Your task to perform on an android device: turn notification dots off Image 0: 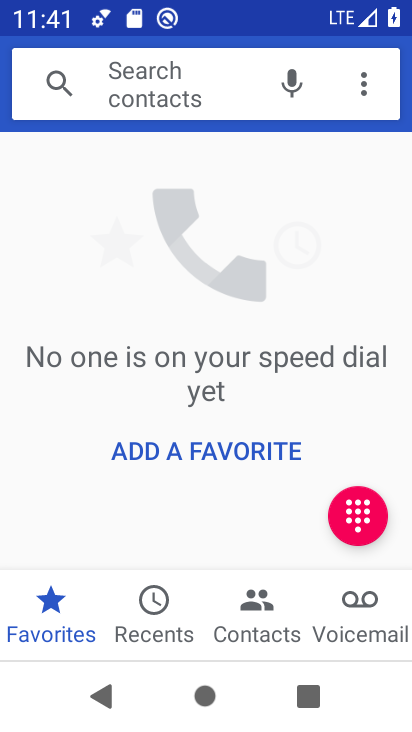
Step 0: press home button
Your task to perform on an android device: turn notification dots off Image 1: 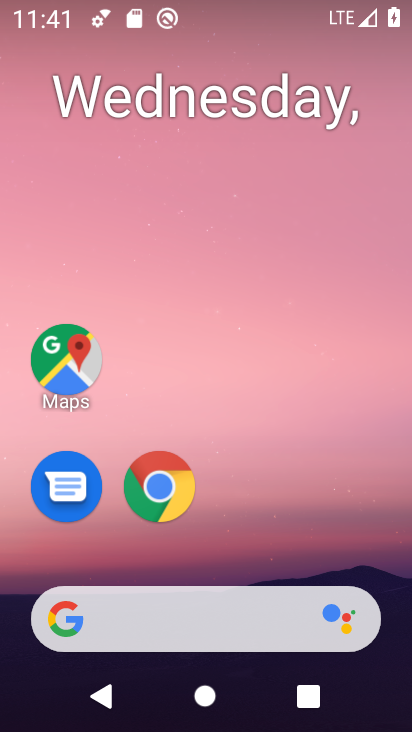
Step 1: drag from (375, 560) to (346, 38)
Your task to perform on an android device: turn notification dots off Image 2: 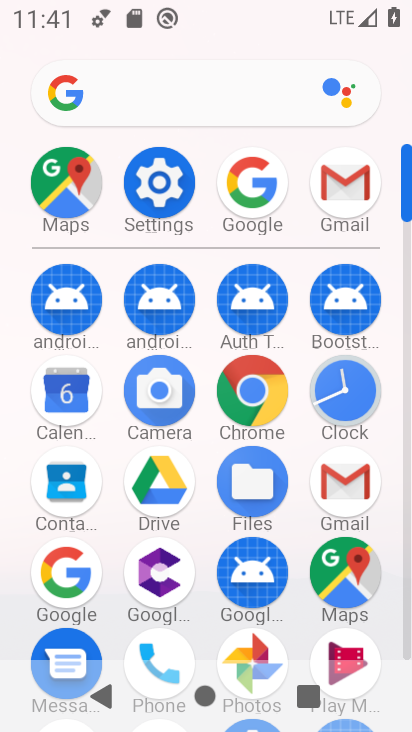
Step 2: click (173, 213)
Your task to perform on an android device: turn notification dots off Image 3: 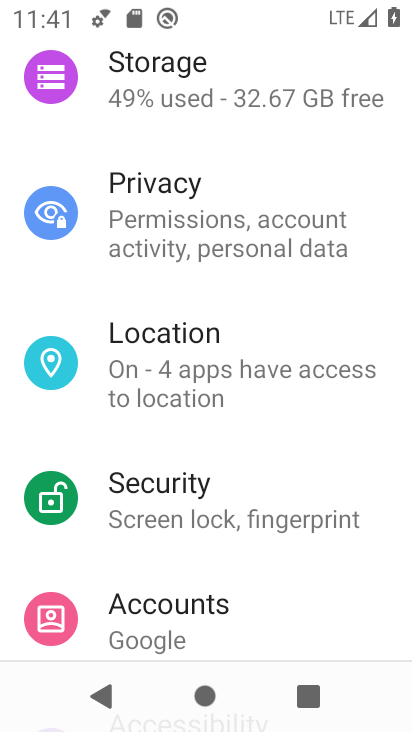
Step 3: drag from (391, 301) to (396, 377)
Your task to perform on an android device: turn notification dots off Image 4: 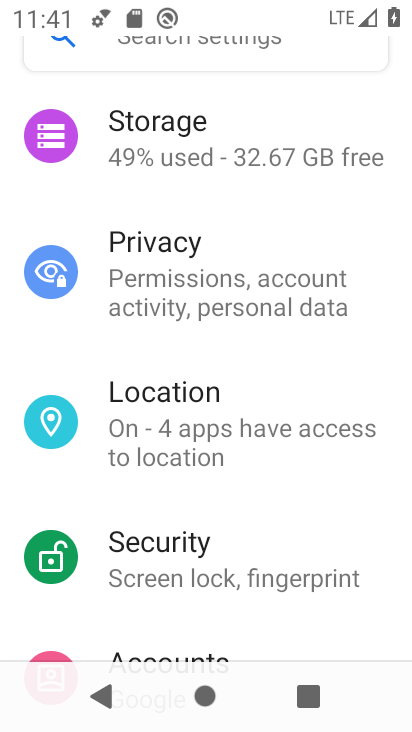
Step 4: drag from (388, 282) to (391, 381)
Your task to perform on an android device: turn notification dots off Image 5: 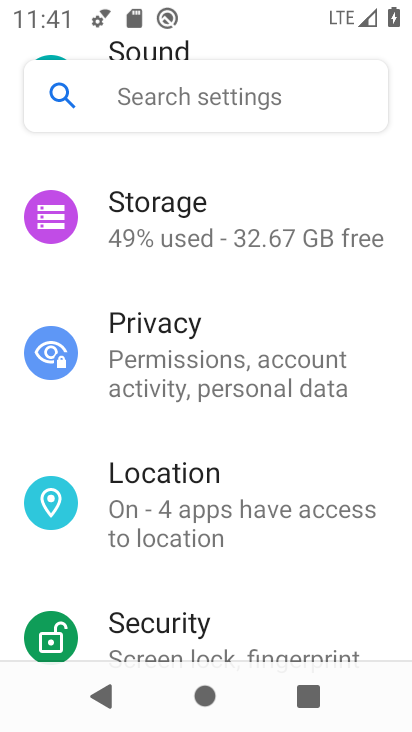
Step 5: drag from (381, 303) to (383, 386)
Your task to perform on an android device: turn notification dots off Image 6: 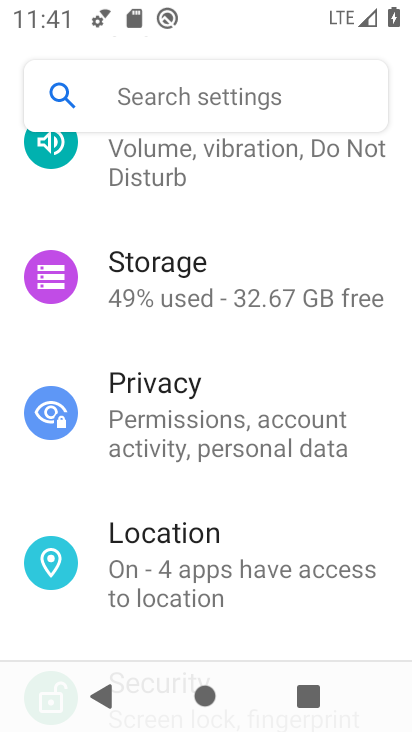
Step 6: drag from (389, 239) to (380, 350)
Your task to perform on an android device: turn notification dots off Image 7: 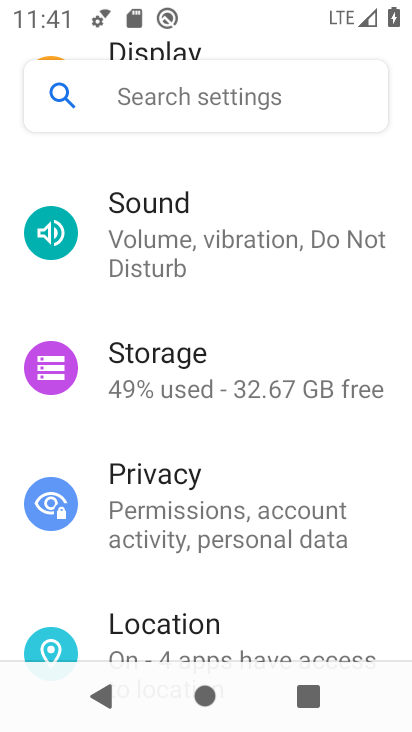
Step 7: drag from (372, 287) to (371, 371)
Your task to perform on an android device: turn notification dots off Image 8: 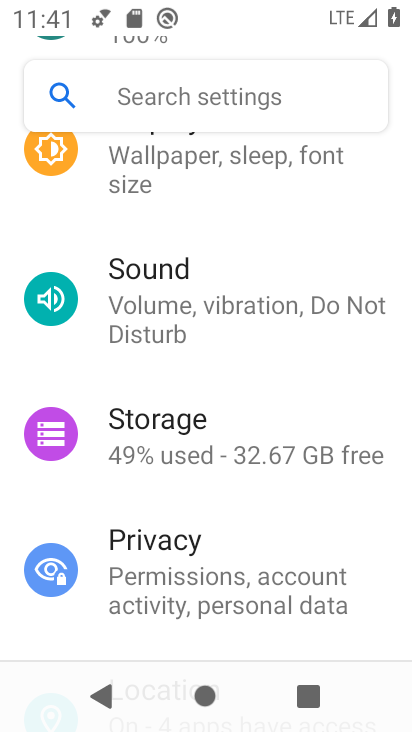
Step 8: drag from (396, 250) to (383, 368)
Your task to perform on an android device: turn notification dots off Image 9: 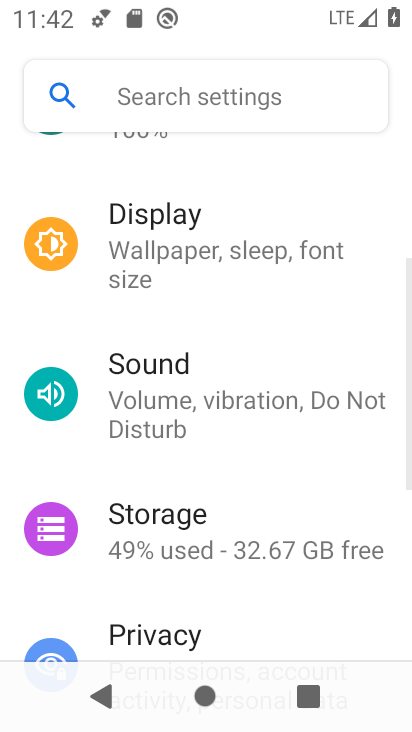
Step 9: drag from (377, 270) to (374, 412)
Your task to perform on an android device: turn notification dots off Image 10: 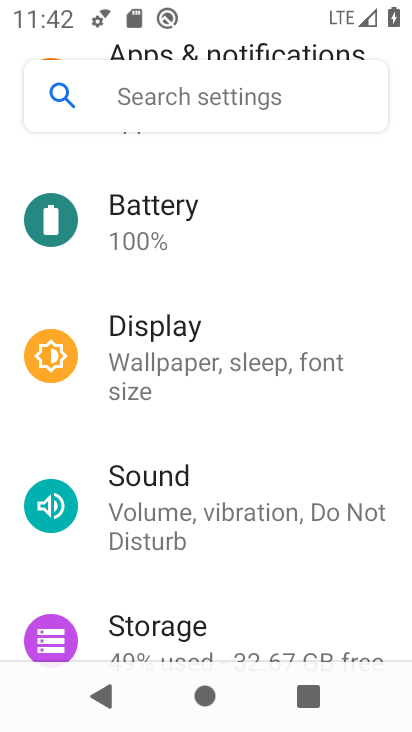
Step 10: drag from (369, 275) to (372, 408)
Your task to perform on an android device: turn notification dots off Image 11: 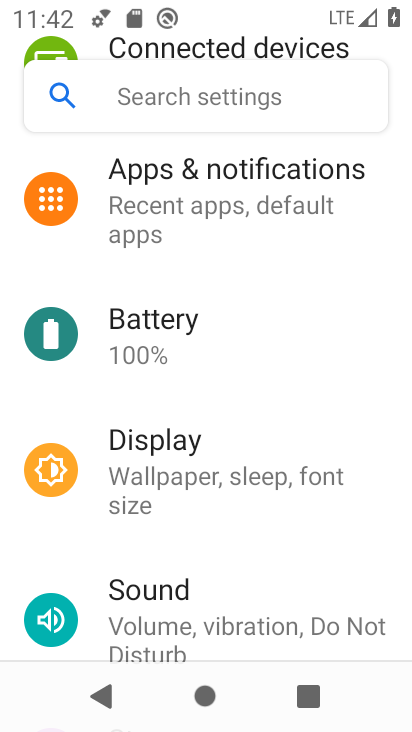
Step 11: drag from (364, 283) to (364, 384)
Your task to perform on an android device: turn notification dots off Image 12: 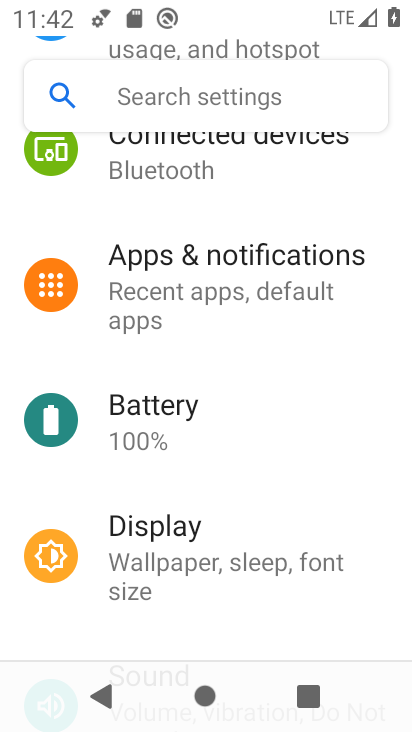
Step 12: drag from (387, 231) to (396, 379)
Your task to perform on an android device: turn notification dots off Image 13: 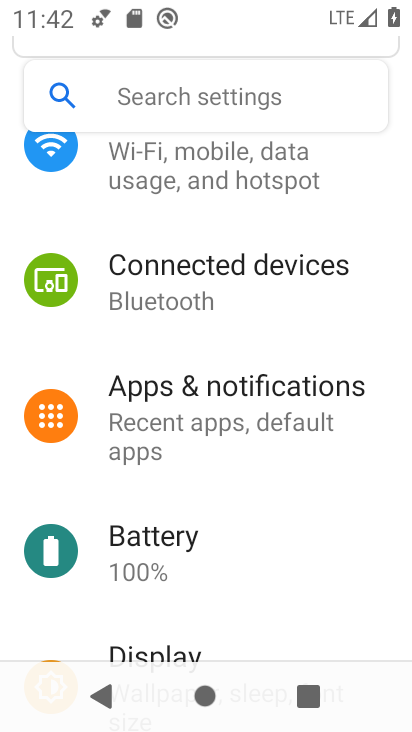
Step 13: click (304, 410)
Your task to perform on an android device: turn notification dots off Image 14: 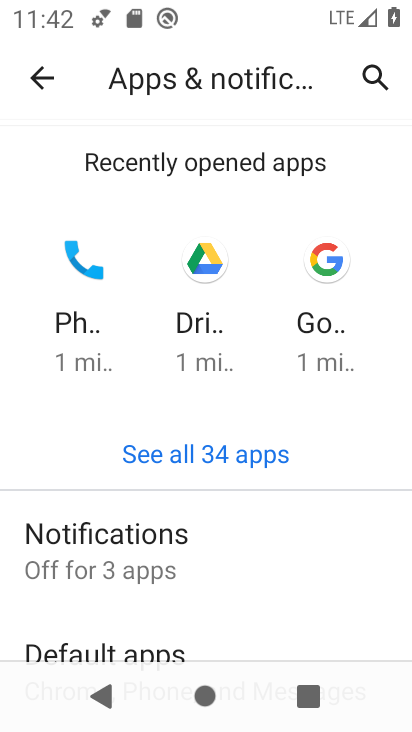
Step 14: click (258, 551)
Your task to perform on an android device: turn notification dots off Image 15: 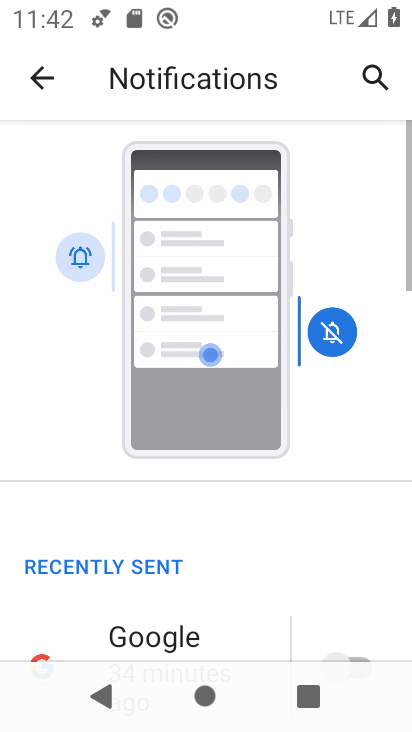
Step 15: drag from (298, 563) to (324, 397)
Your task to perform on an android device: turn notification dots off Image 16: 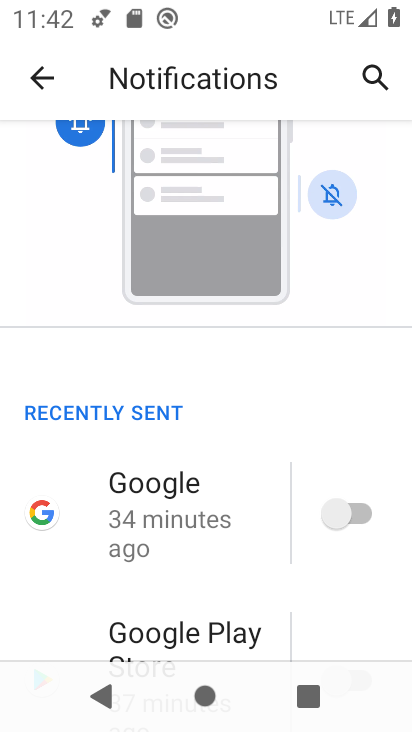
Step 16: drag from (261, 587) to (275, 403)
Your task to perform on an android device: turn notification dots off Image 17: 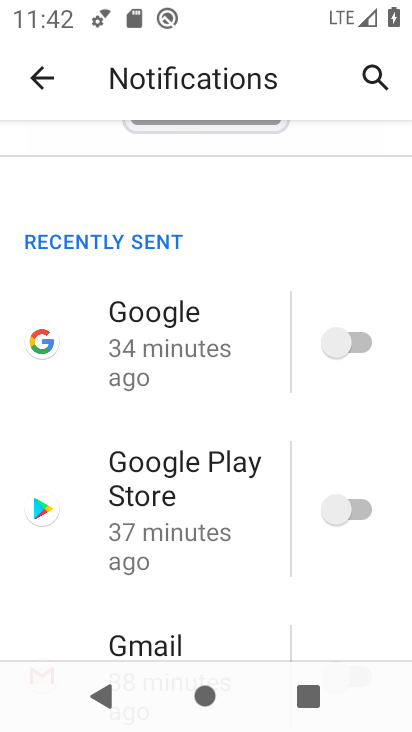
Step 17: drag from (357, 613) to (382, 393)
Your task to perform on an android device: turn notification dots off Image 18: 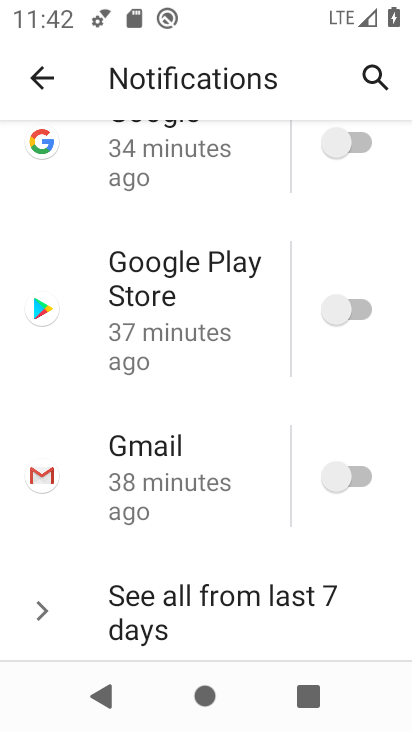
Step 18: drag from (367, 604) to (383, 427)
Your task to perform on an android device: turn notification dots off Image 19: 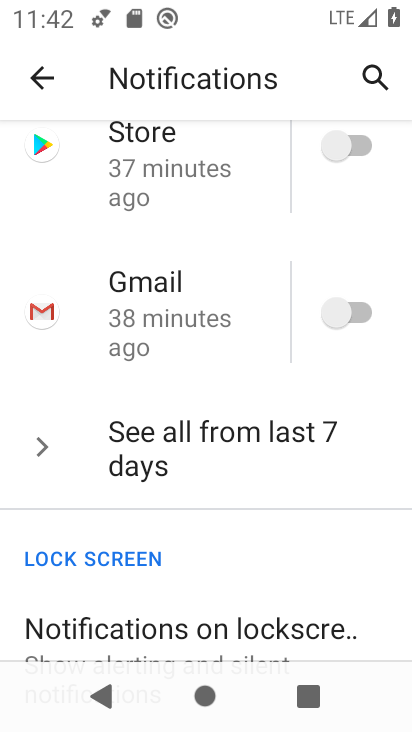
Step 19: drag from (376, 596) to (382, 327)
Your task to perform on an android device: turn notification dots off Image 20: 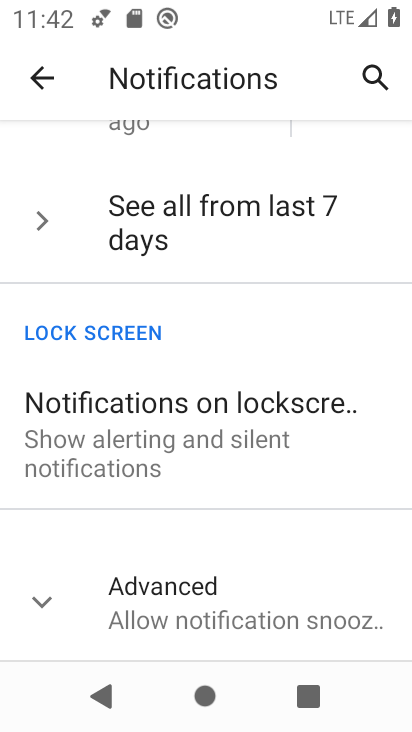
Step 20: click (337, 596)
Your task to perform on an android device: turn notification dots off Image 21: 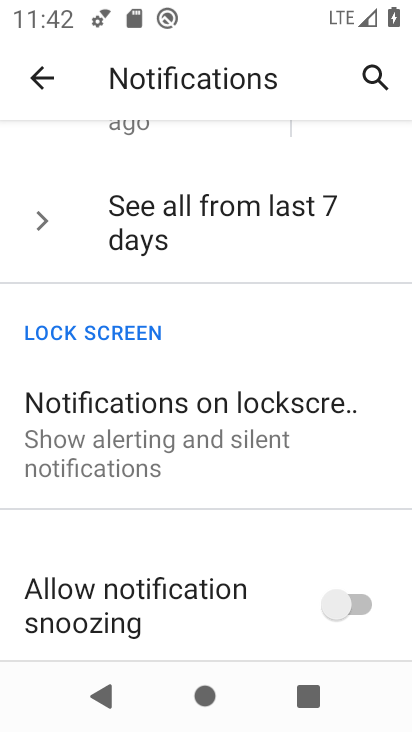
Step 21: task complete